Your task to perform on an android device: How much does a 2 bedroom apartment rent for in Atlanta? Image 0: 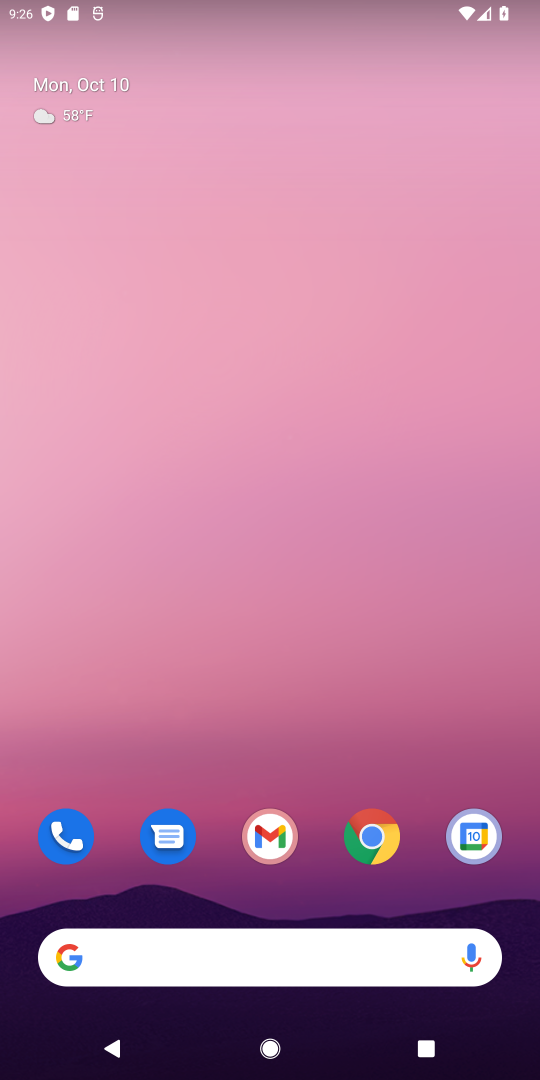
Step 0: drag from (316, 751) to (320, 229)
Your task to perform on an android device: How much does a 2 bedroom apartment rent for in Atlanta? Image 1: 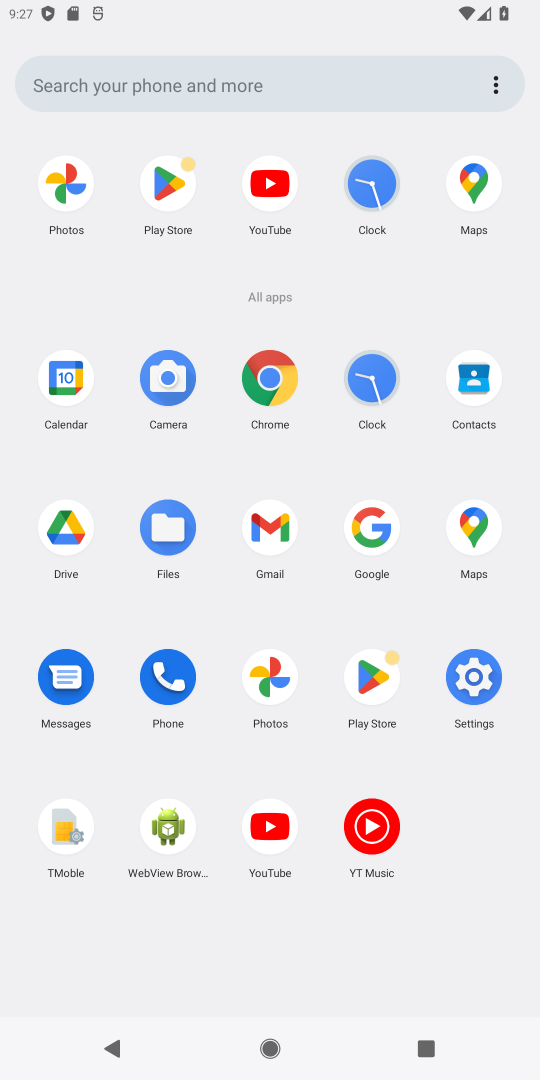
Step 1: click (370, 530)
Your task to perform on an android device: How much does a 2 bedroom apartment rent for in Atlanta? Image 2: 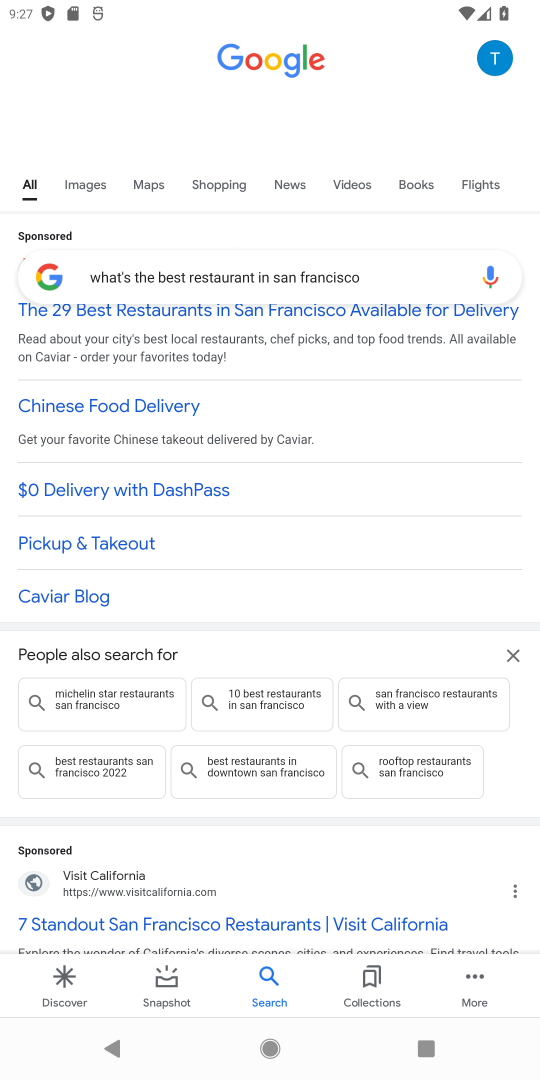
Step 2: click (292, 114)
Your task to perform on an android device: How much does a 2 bedroom apartment rent for in Atlanta? Image 3: 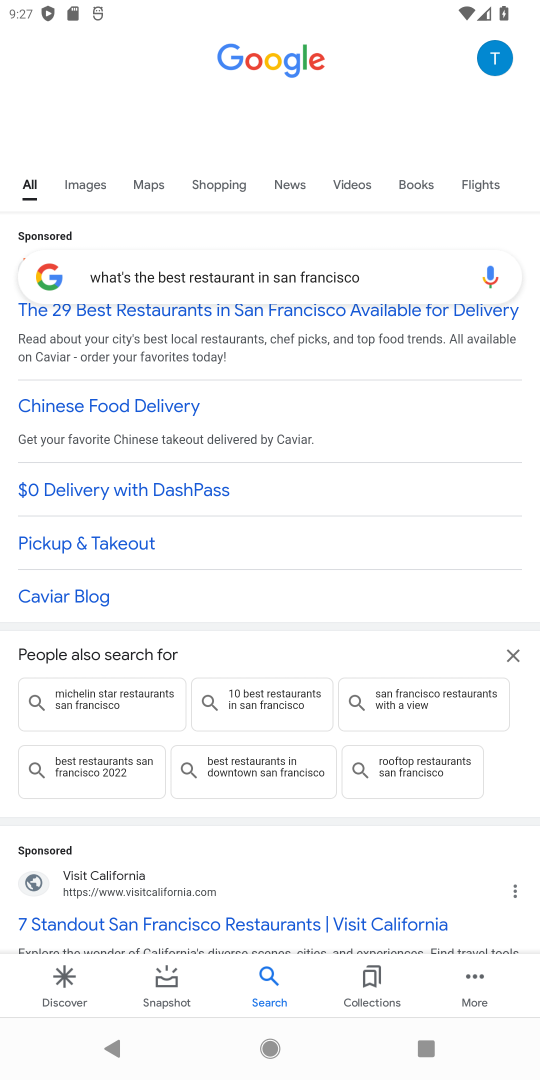
Step 3: click (288, 283)
Your task to perform on an android device: How much does a 2 bedroom apartment rent for in Atlanta? Image 4: 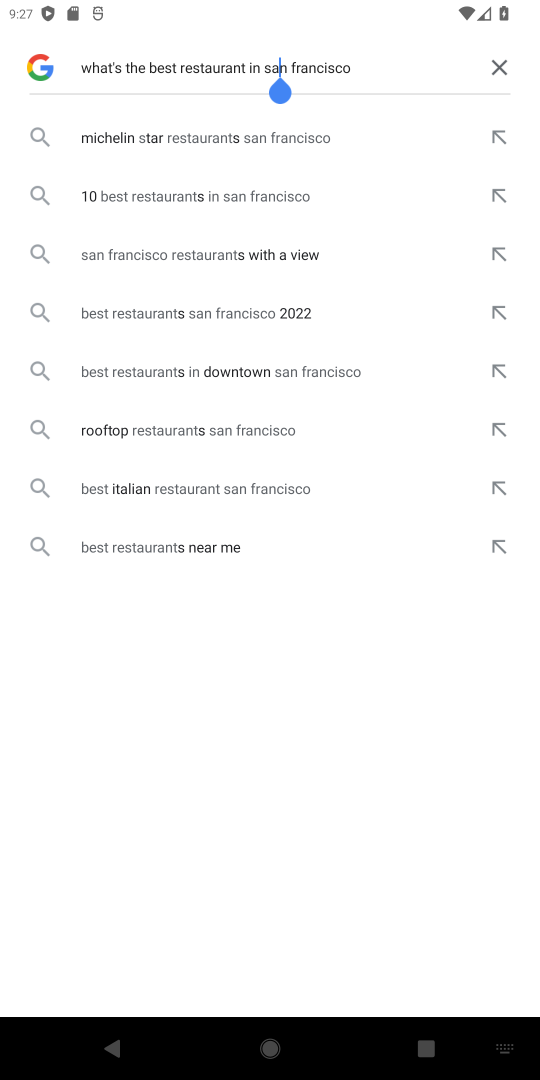
Step 4: click (497, 71)
Your task to perform on an android device: How much does a 2 bedroom apartment rent for in Atlanta? Image 5: 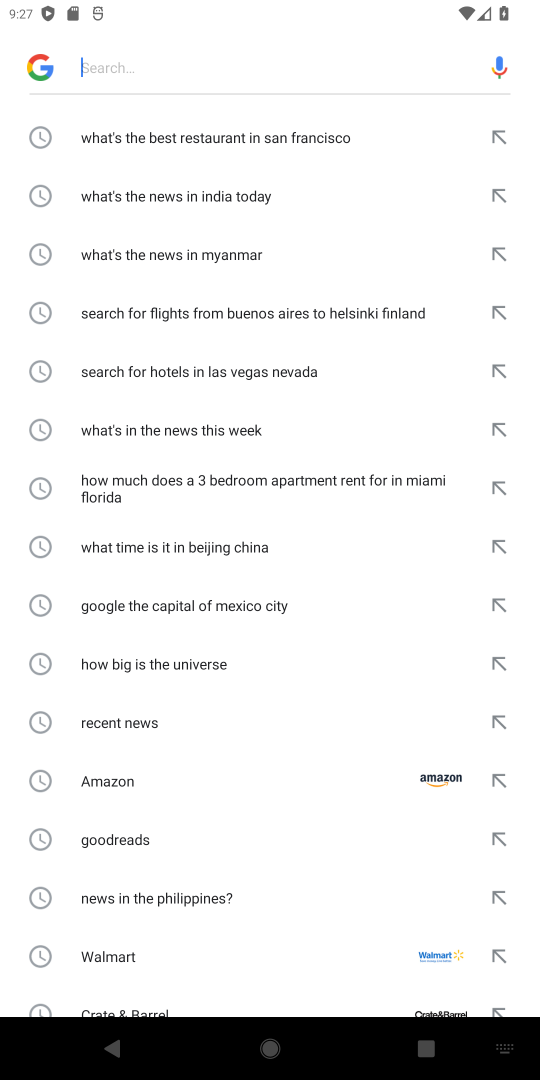
Step 5: type "How much does a 2 bedroom apartment rent for in Atlanta?"
Your task to perform on an android device: How much does a 2 bedroom apartment rent for in Atlanta? Image 6: 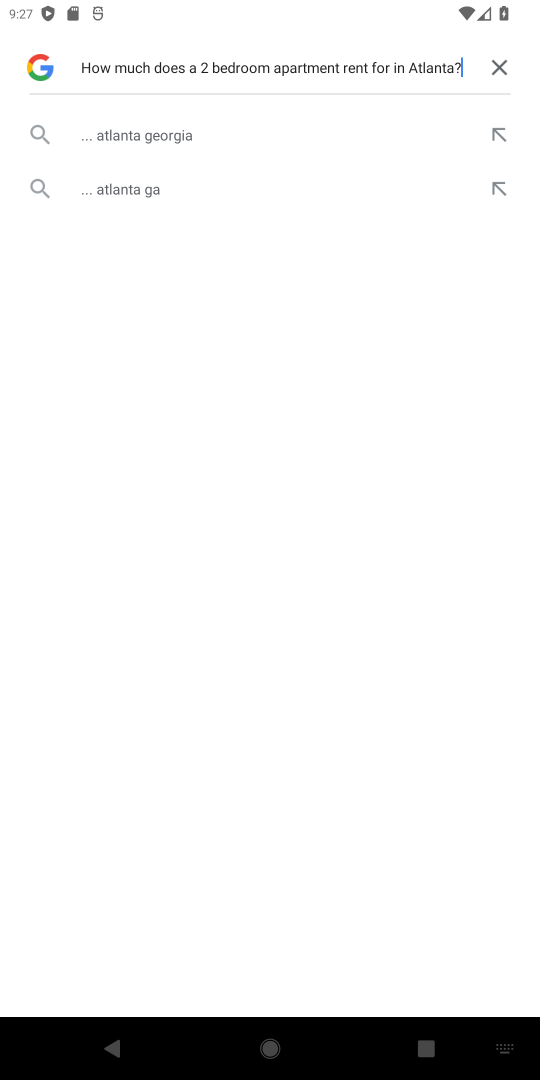
Step 6: click (145, 139)
Your task to perform on an android device: How much does a 2 bedroom apartment rent for in Atlanta? Image 7: 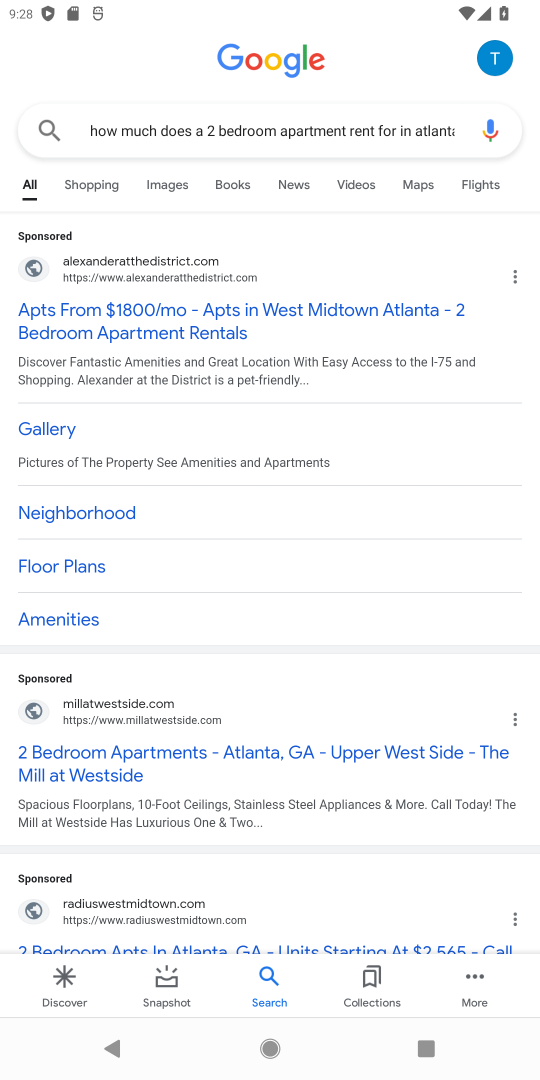
Step 7: click (175, 330)
Your task to perform on an android device: How much does a 2 bedroom apartment rent for in Atlanta? Image 8: 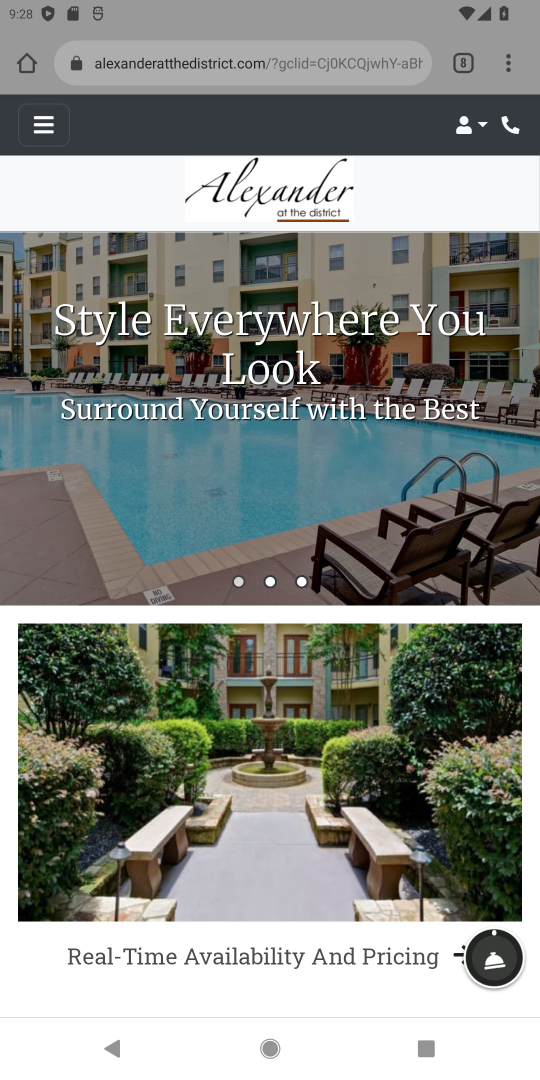
Step 8: task complete